Your task to perform on an android device: Show the shopping cart on target. Image 0: 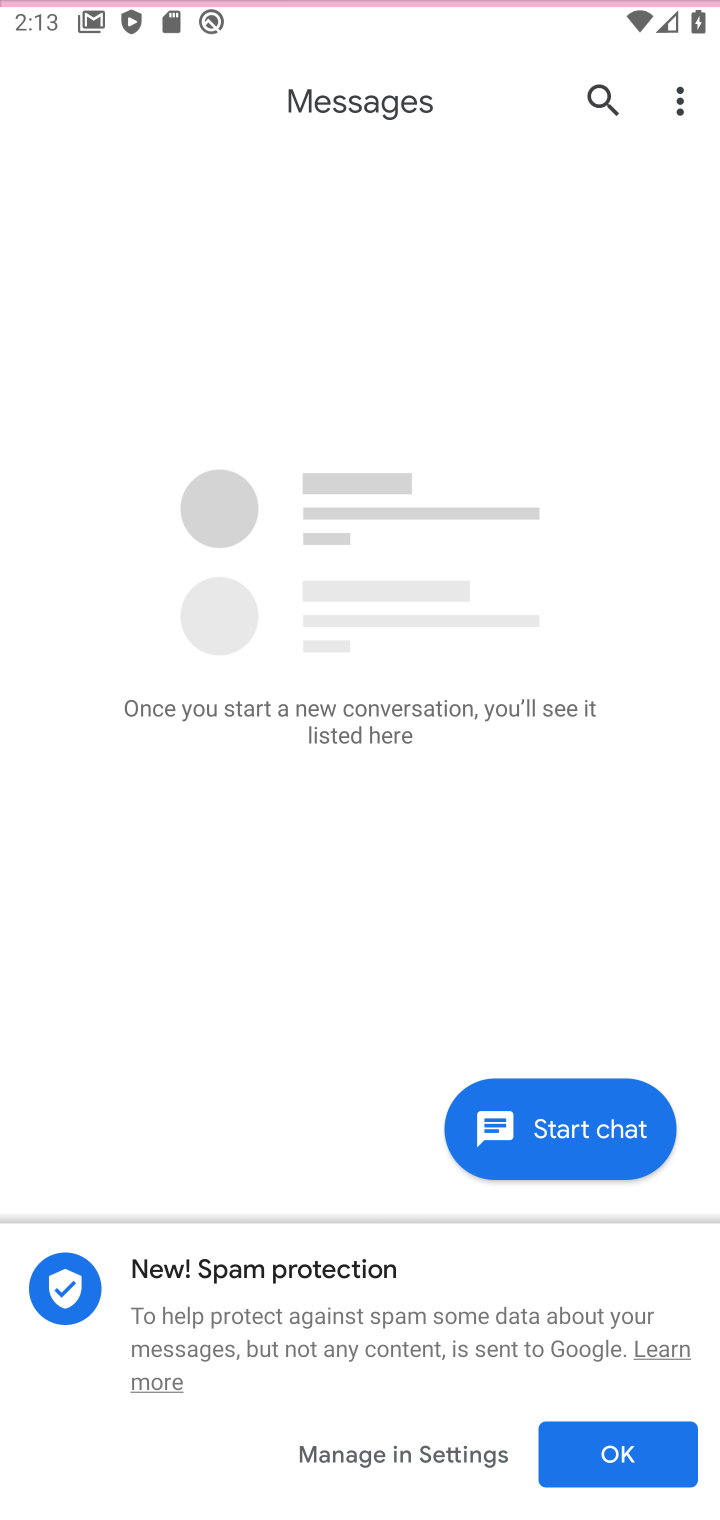
Step 0: press home button
Your task to perform on an android device: Show the shopping cart on target. Image 1: 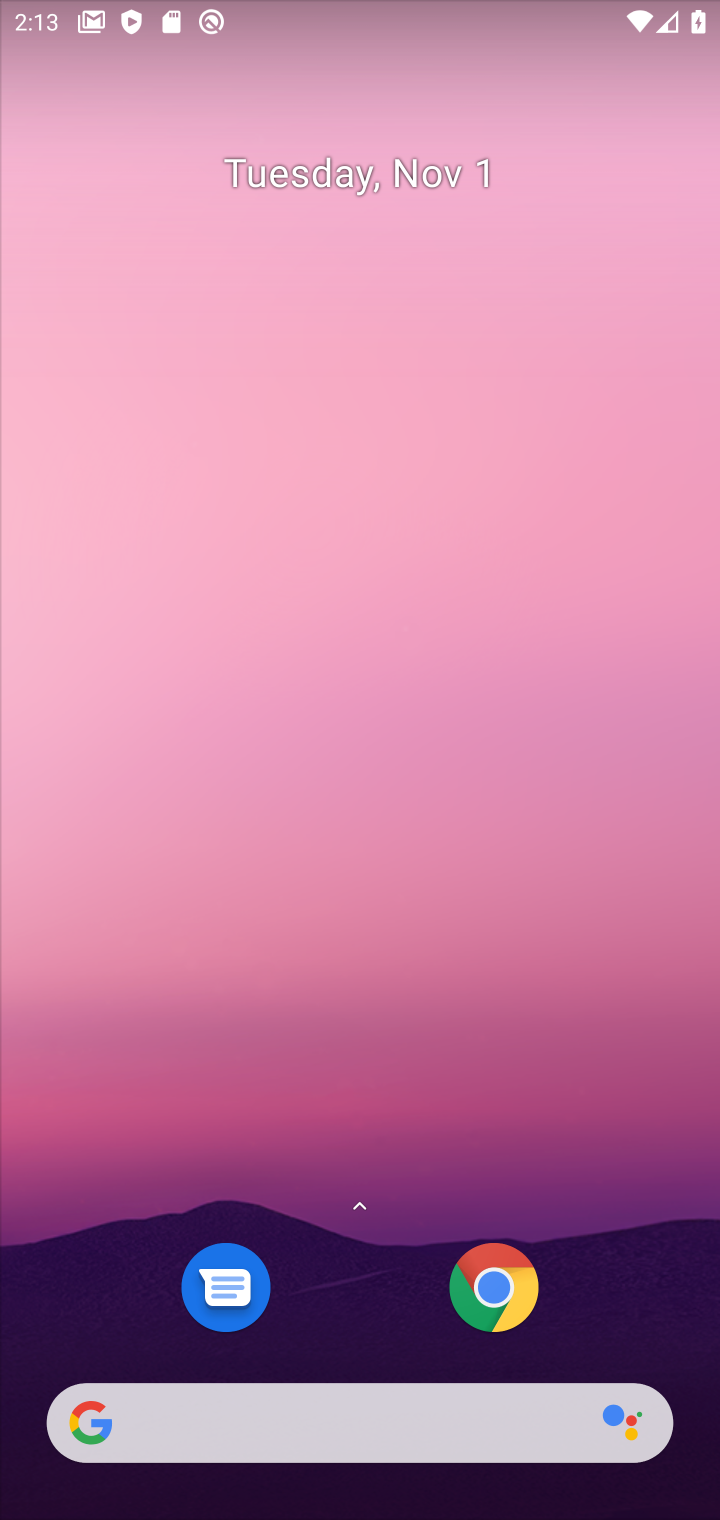
Step 1: press home button
Your task to perform on an android device: Show the shopping cart on target. Image 2: 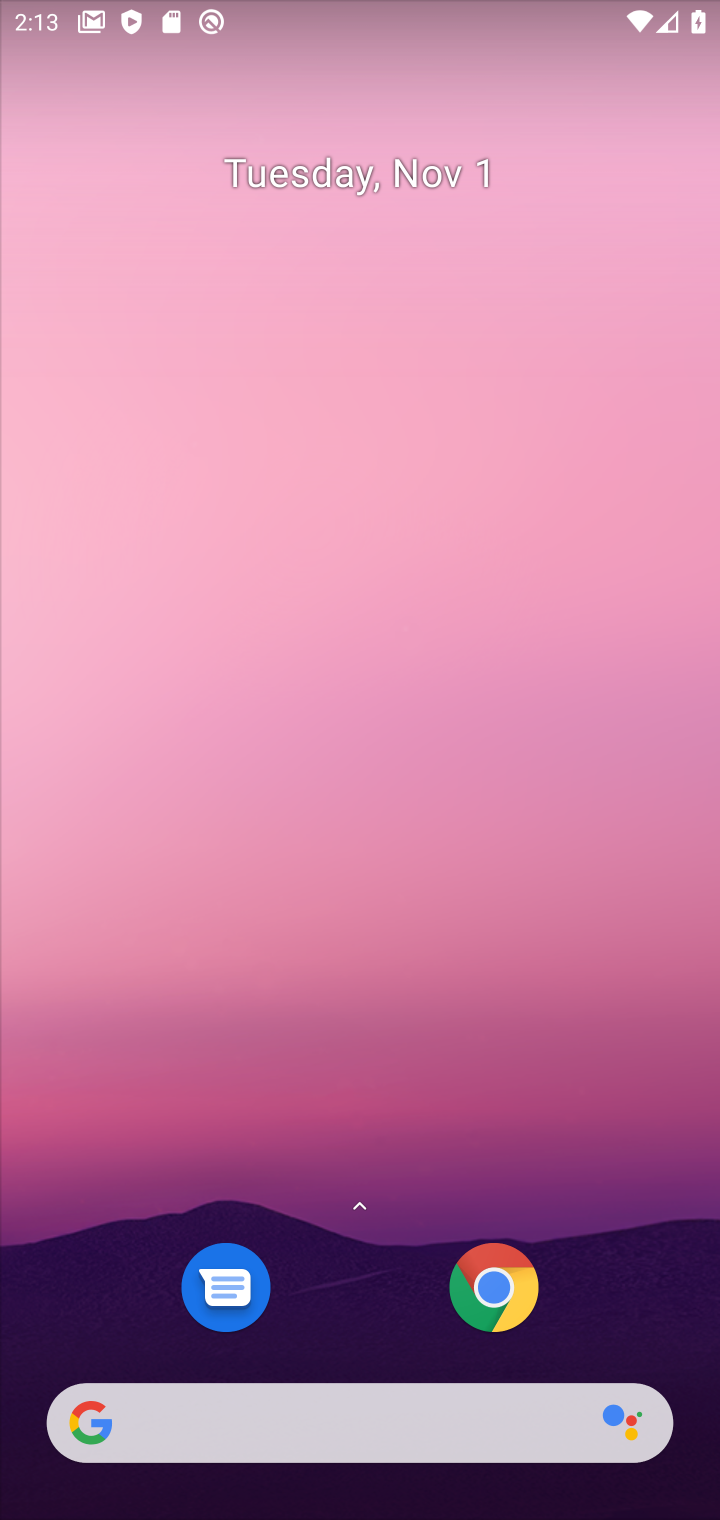
Step 2: click (325, 291)
Your task to perform on an android device: Show the shopping cart on target. Image 3: 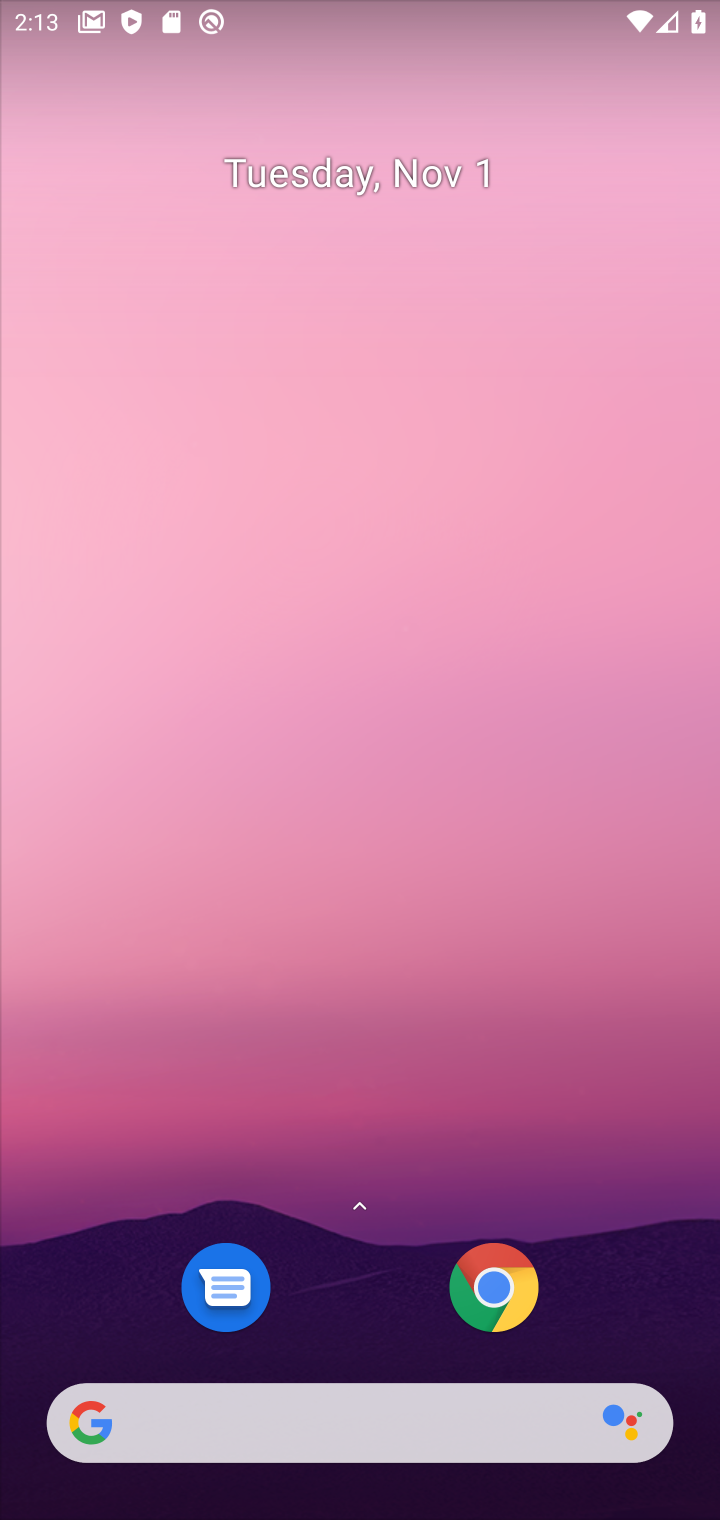
Step 3: drag from (393, 1357) to (492, 245)
Your task to perform on an android device: Show the shopping cart on target. Image 4: 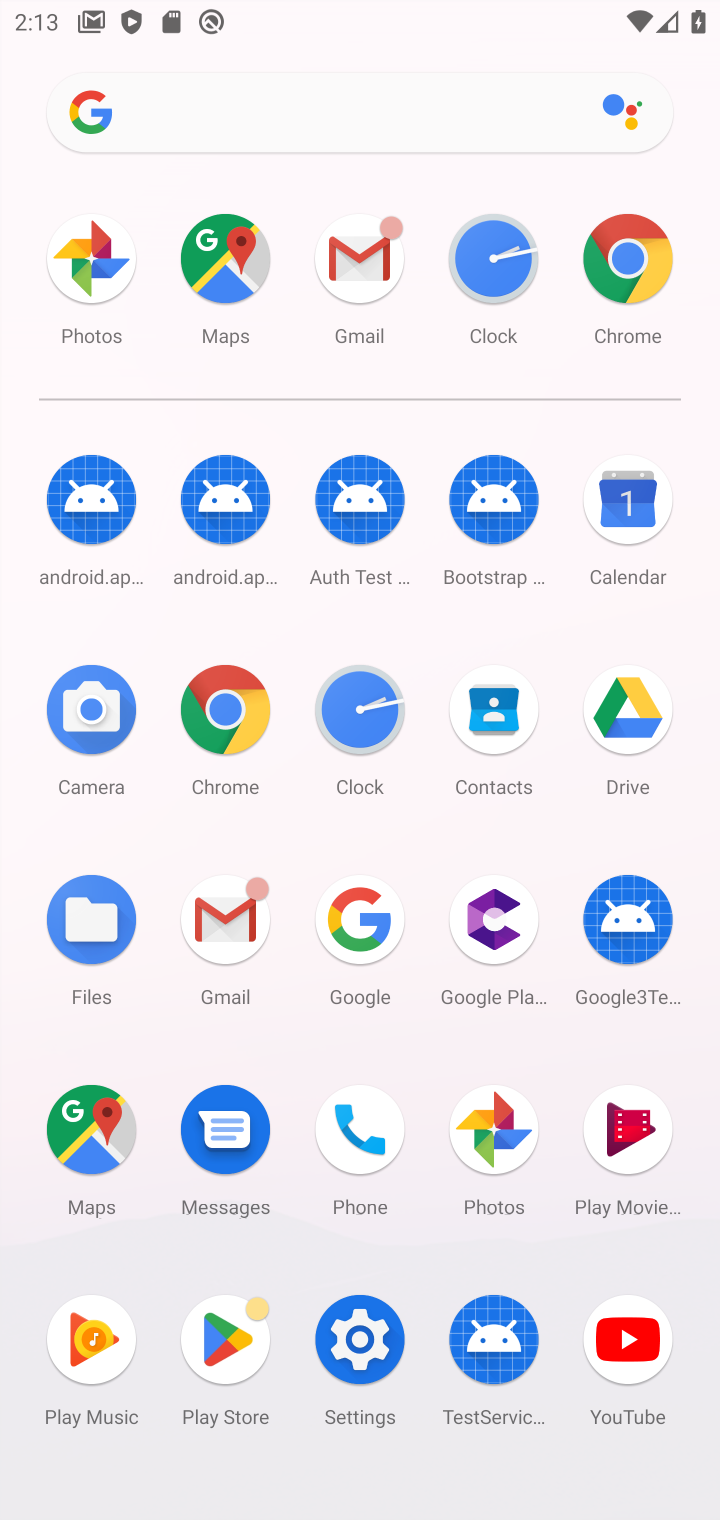
Step 4: click (231, 718)
Your task to perform on an android device: Show the shopping cart on target. Image 5: 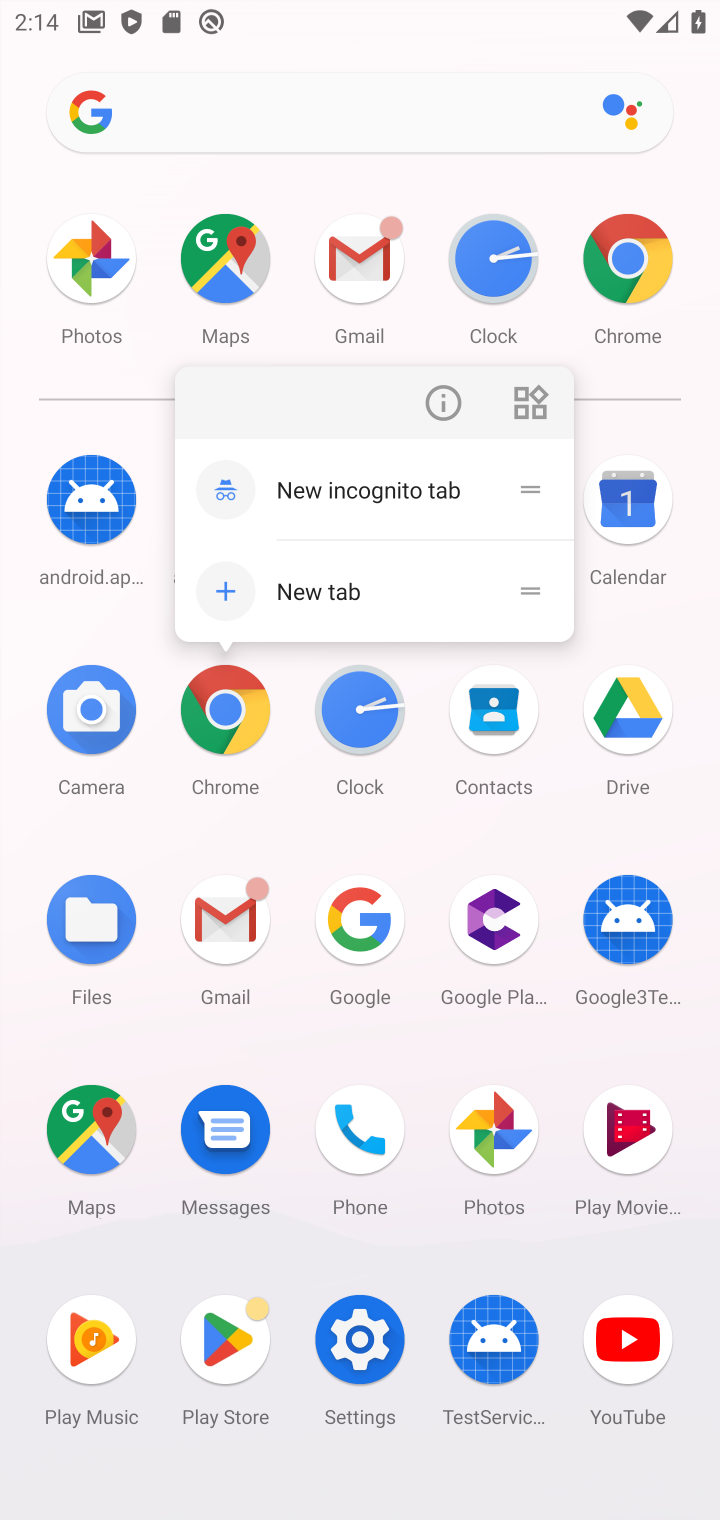
Step 5: click (224, 716)
Your task to perform on an android device: Show the shopping cart on target. Image 6: 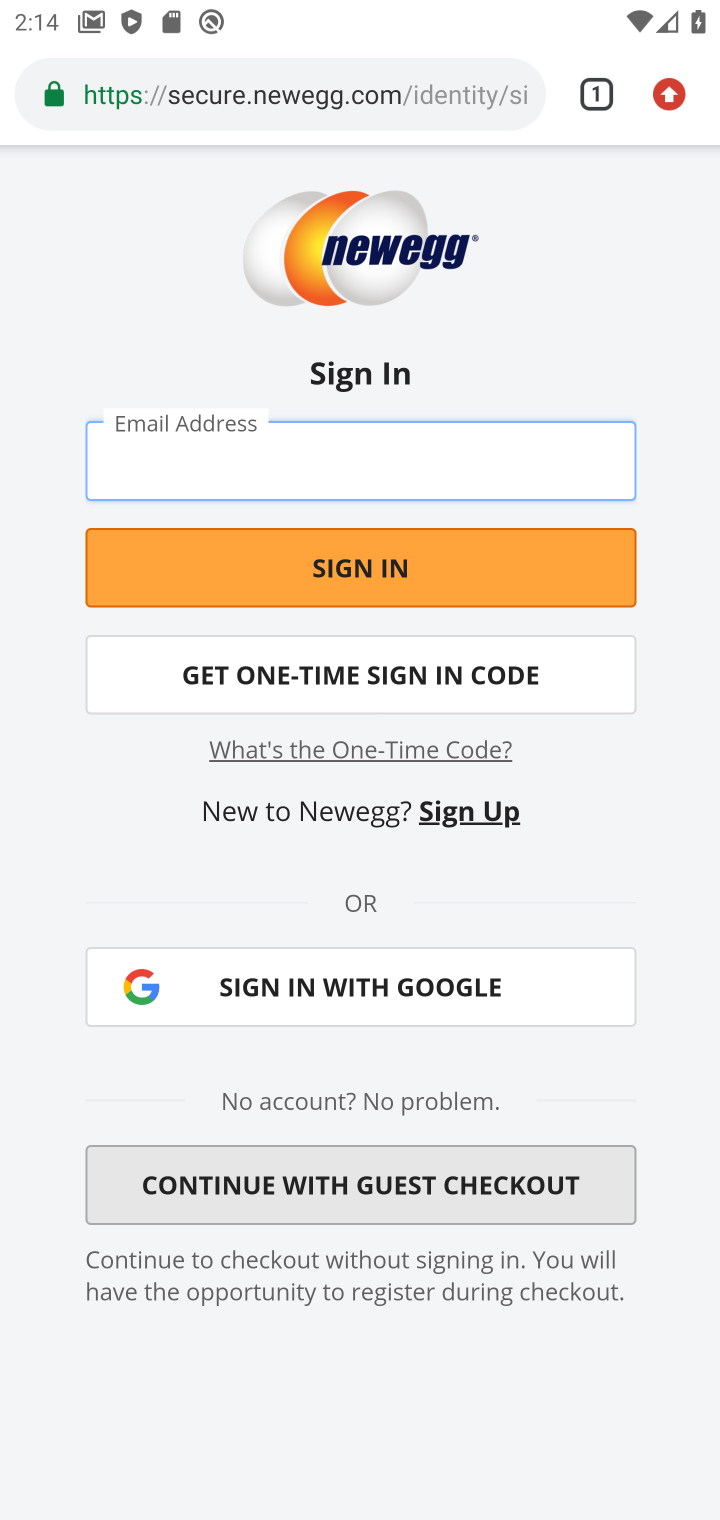
Step 6: click (350, 90)
Your task to perform on an android device: Show the shopping cart on target. Image 7: 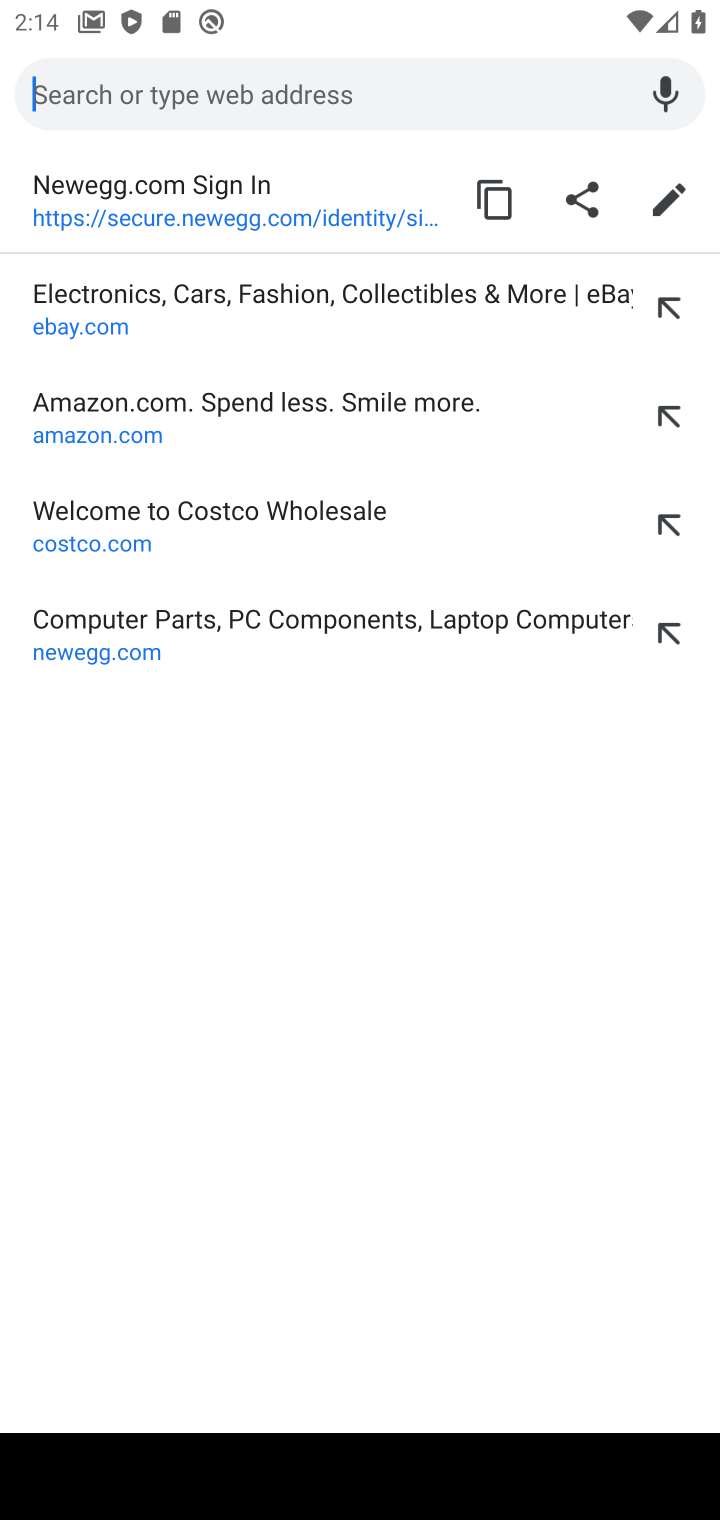
Step 7: type "target.com"
Your task to perform on an android device: Show the shopping cart on target. Image 8: 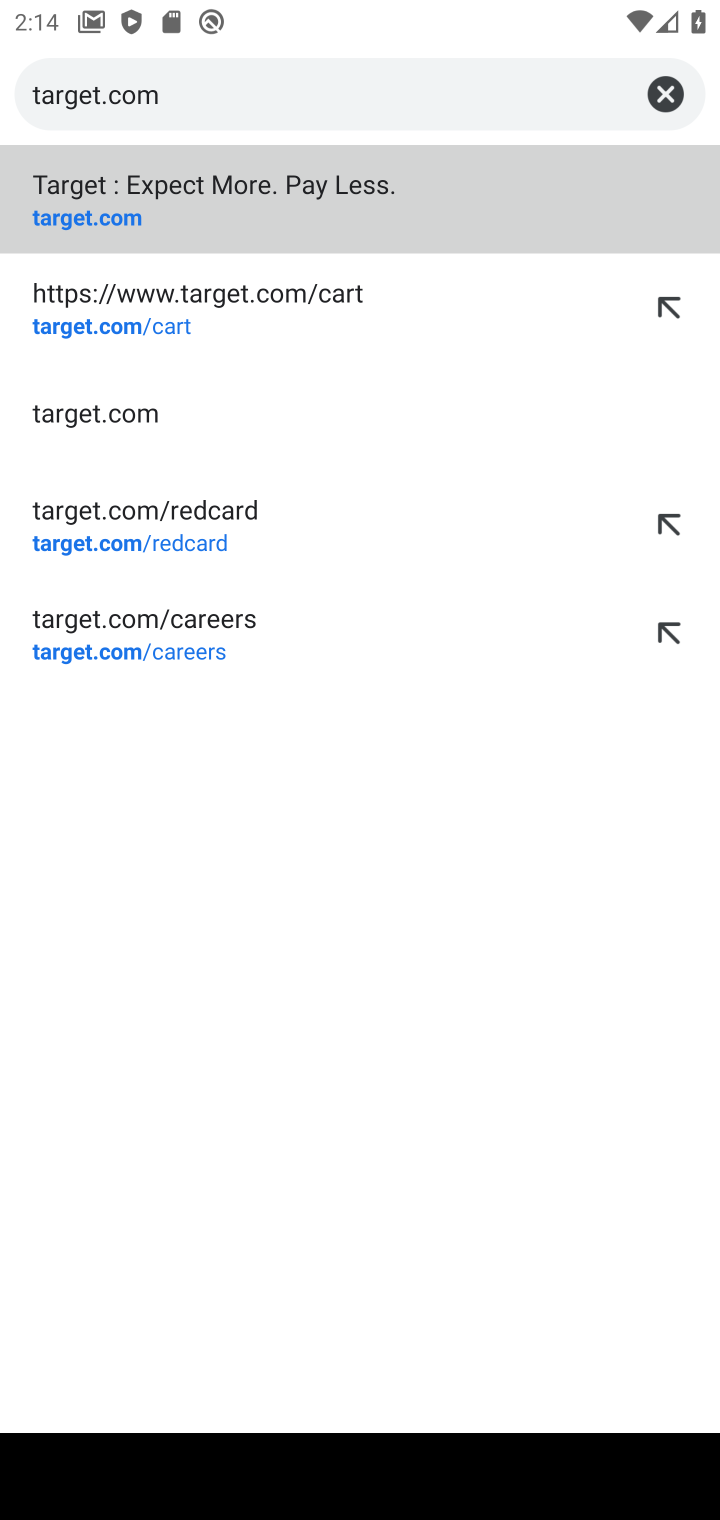
Step 8: press enter
Your task to perform on an android device: Show the shopping cart on target. Image 9: 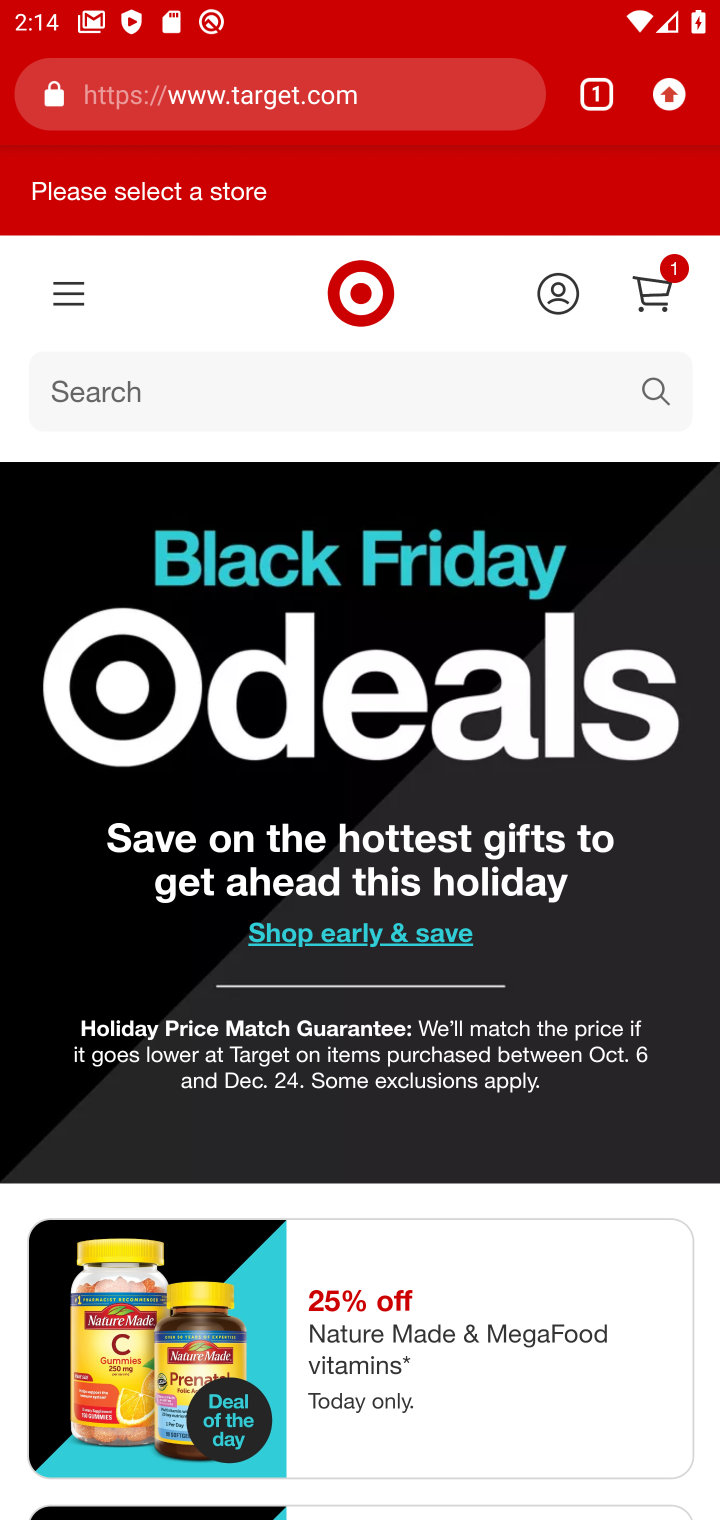
Step 9: click (462, 405)
Your task to perform on an android device: Show the shopping cart on target. Image 10: 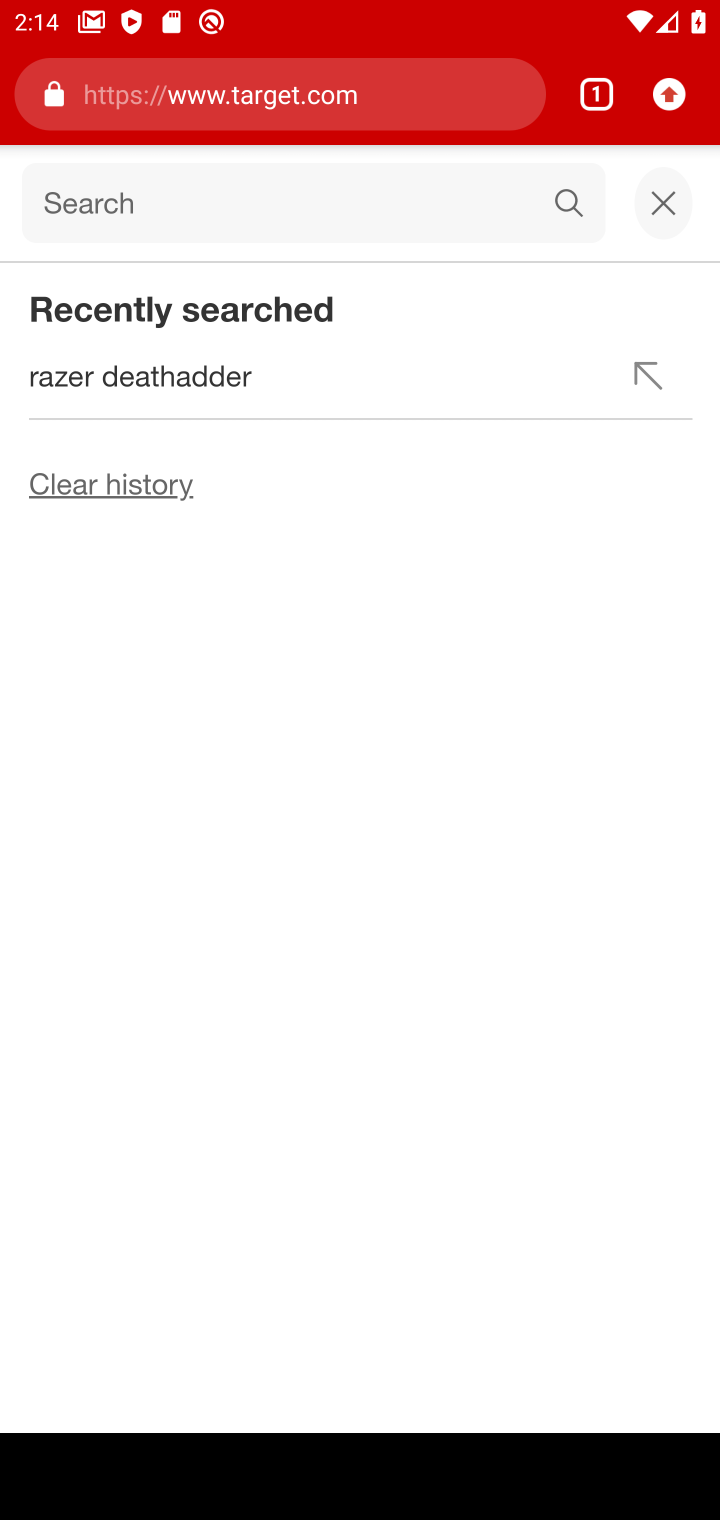
Step 10: click (653, 196)
Your task to perform on an android device: Show the shopping cart on target. Image 11: 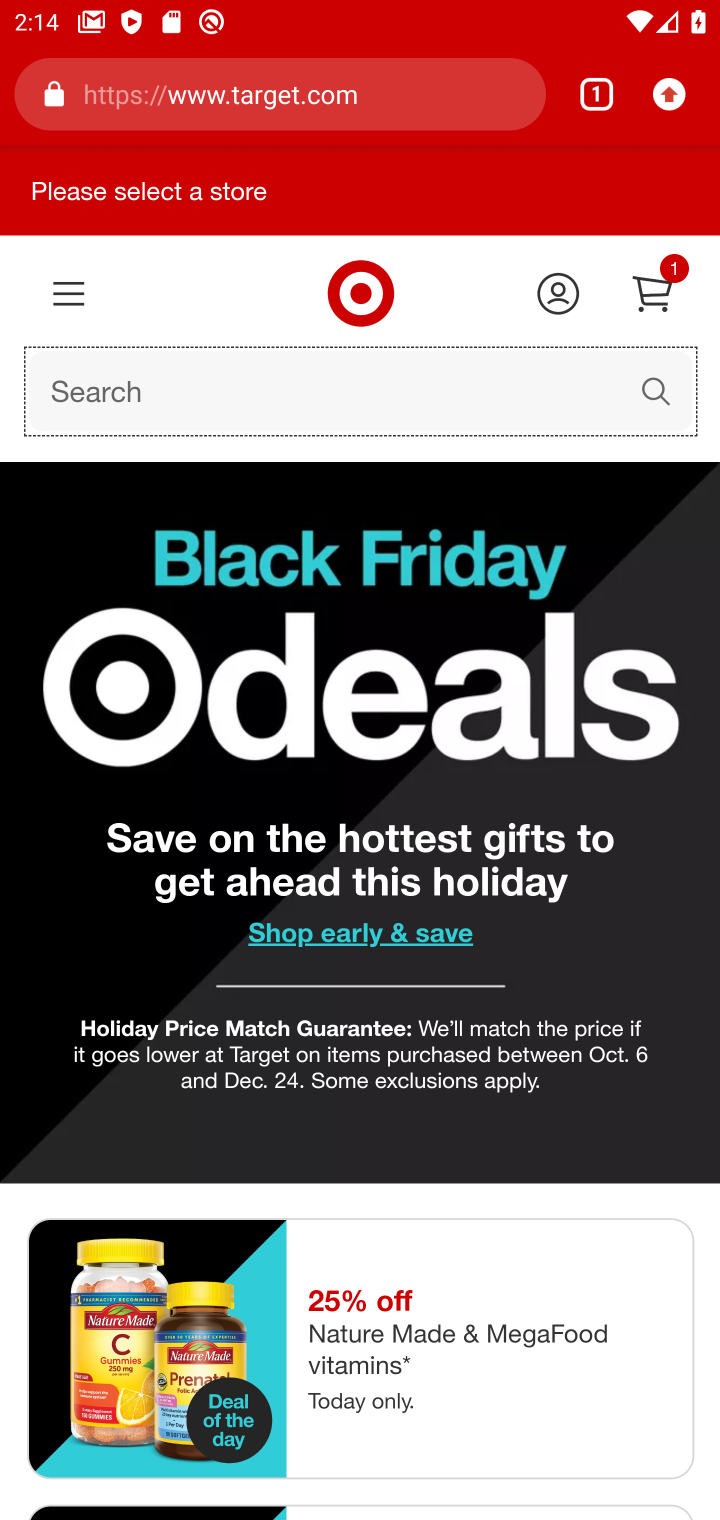
Step 11: click (665, 293)
Your task to perform on an android device: Show the shopping cart on target. Image 12: 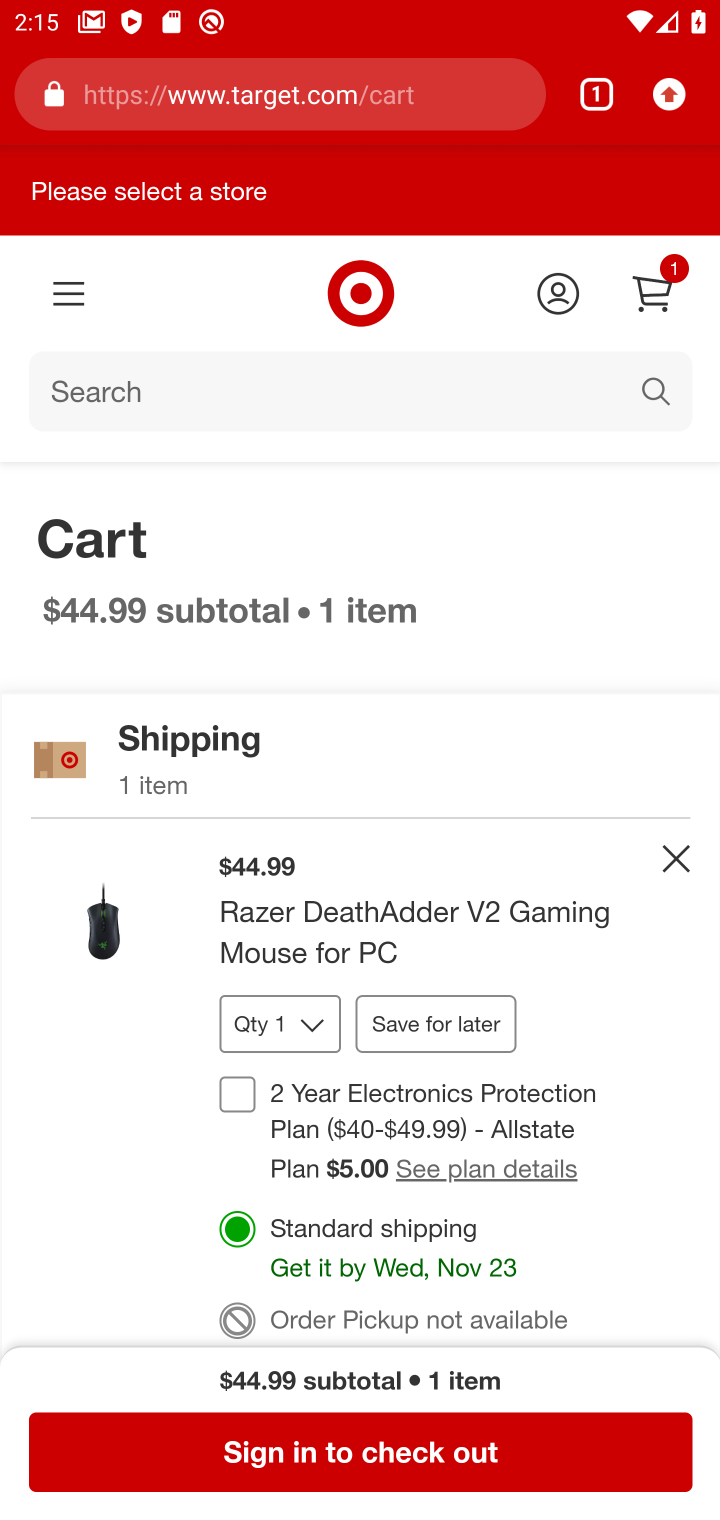
Step 12: task complete